Your task to perform on an android device: turn on wifi Image 0: 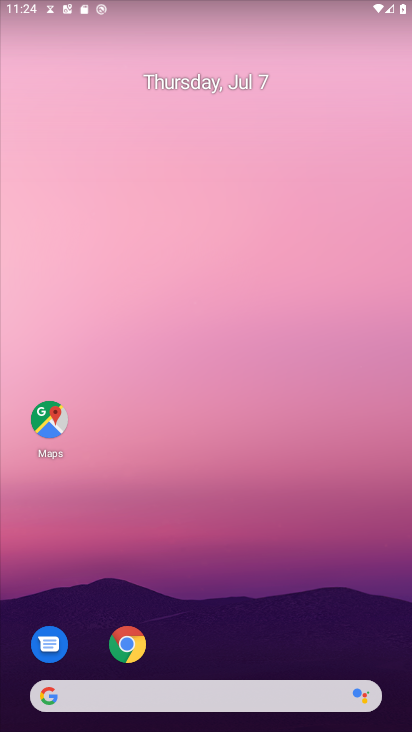
Step 0: press home button
Your task to perform on an android device: turn on wifi Image 1: 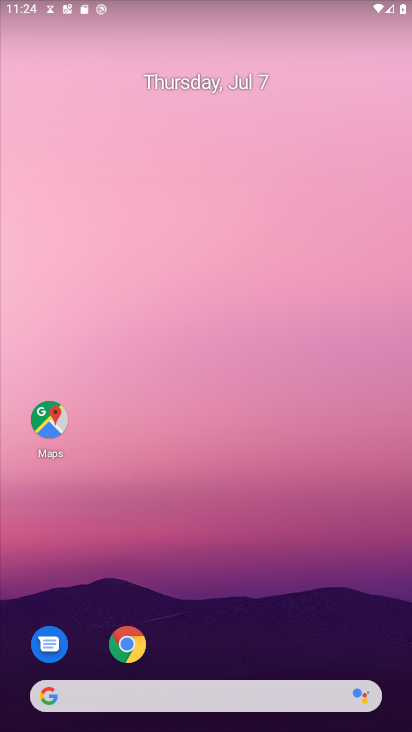
Step 1: drag from (265, 576) to (310, 7)
Your task to perform on an android device: turn on wifi Image 2: 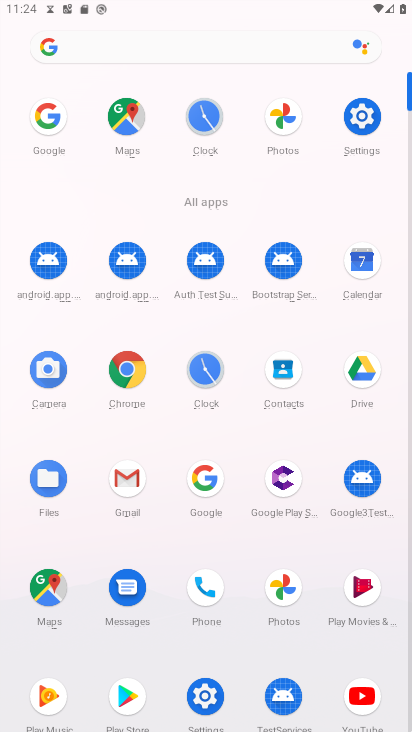
Step 2: click (353, 111)
Your task to perform on an android device: turn on wifi Image 3: 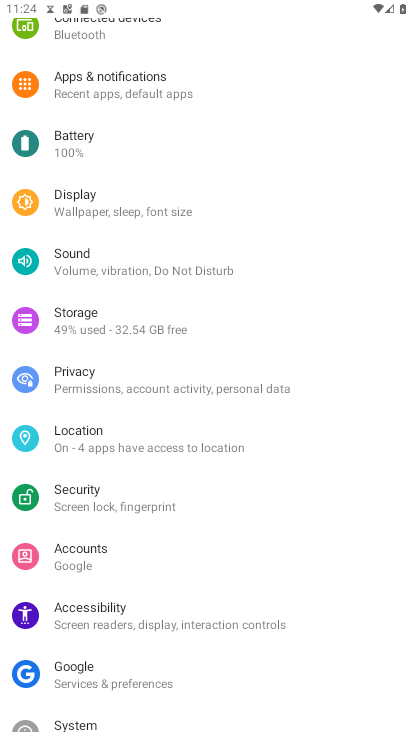
Step 3: drag from (168, 129) to (191, 531)
Your task to perform on an android device: turn on wifi Image 4: 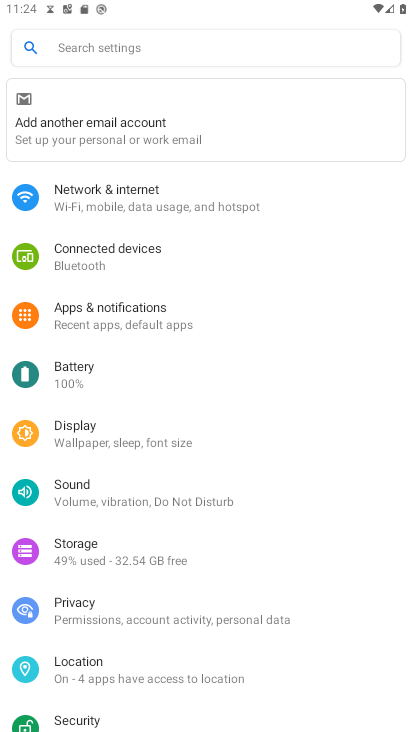
Step 4: click (85, 189)
Your task to perform on an android device: turn on wifi Image 5: 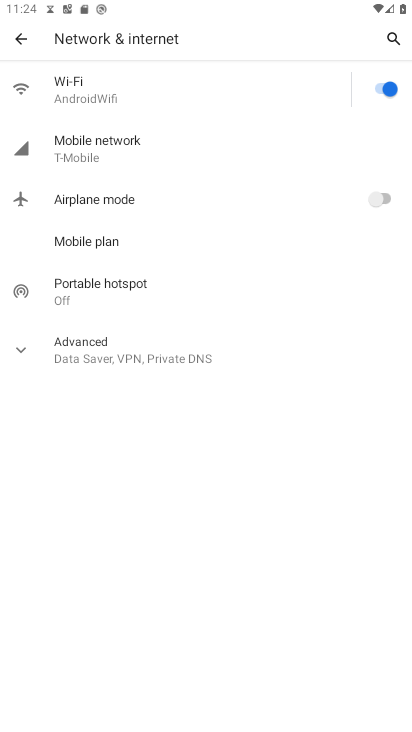
Step 5: click (197, 91)
Your task to perform on an android device: turn on wifi Image 6: 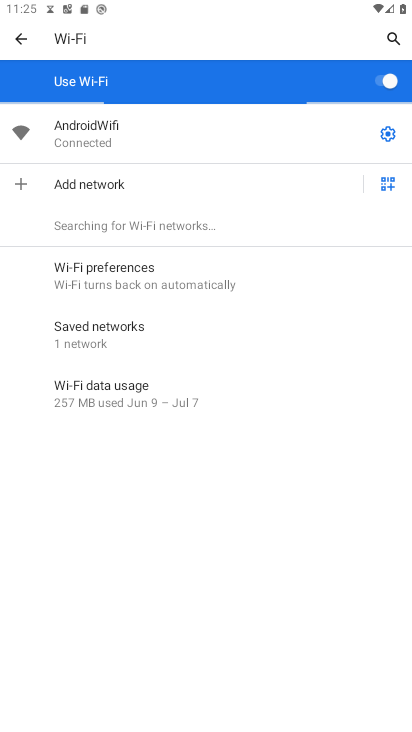
Step 6: task complete